Your task to perform on an android device: Go to Yahoo.com Image 0: 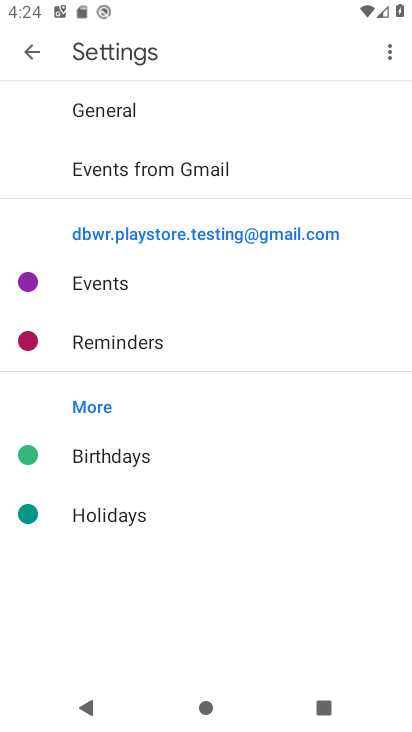
Step 0: press home button
Your task to perform on an android device: Go to Yahoo.com Image 1: 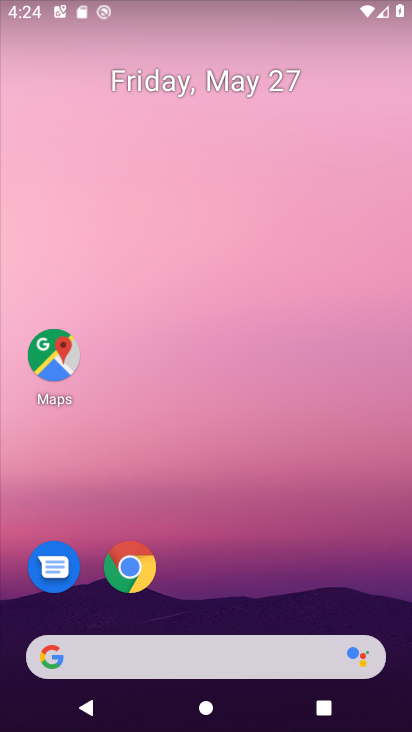
Step 1: click (128, 575)
Your task to perform on an android device: Go to Yahoo.com Image 2: 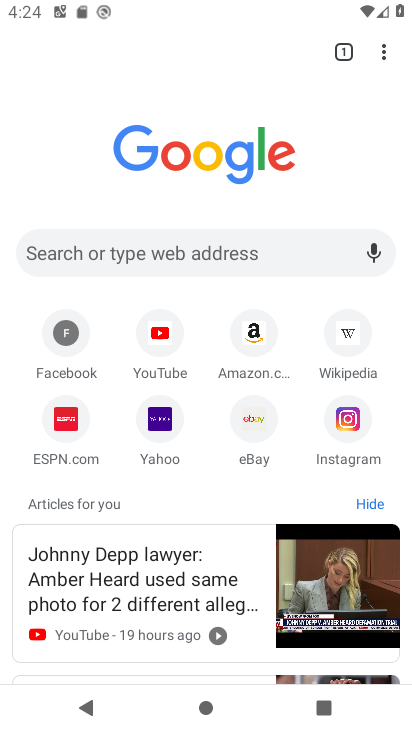
Step 2: click (150, 428)
Your task to perform on an android device: Go to Yahoo.com Image 3: 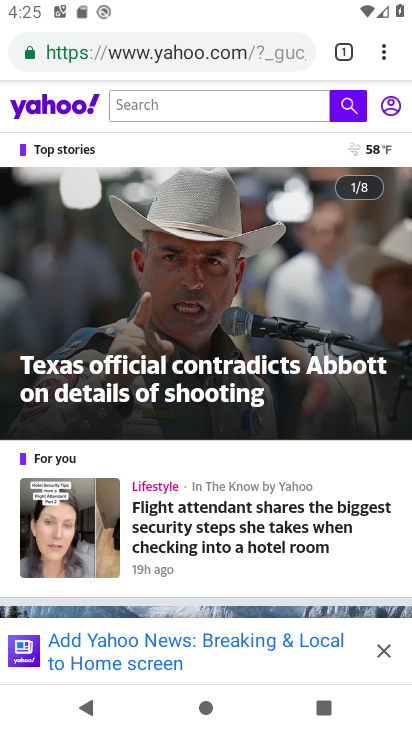
Step 3: task complete